Your task to perform on an android device: open chrome privacy settings Image 0: 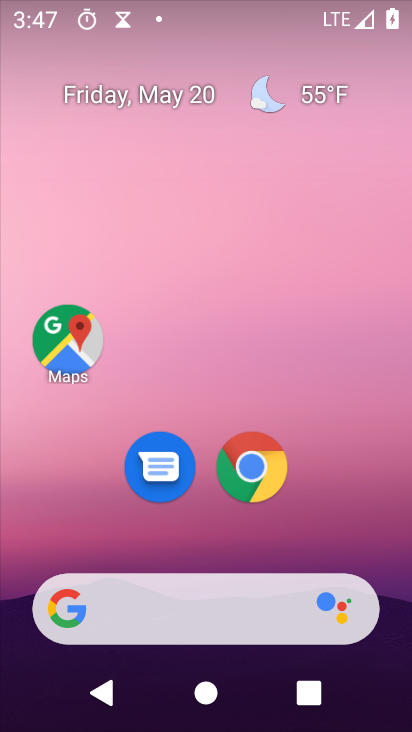
Step 0: click (263, 466)
Your task to perform on an android device: open chrome privacy settings Image 1: 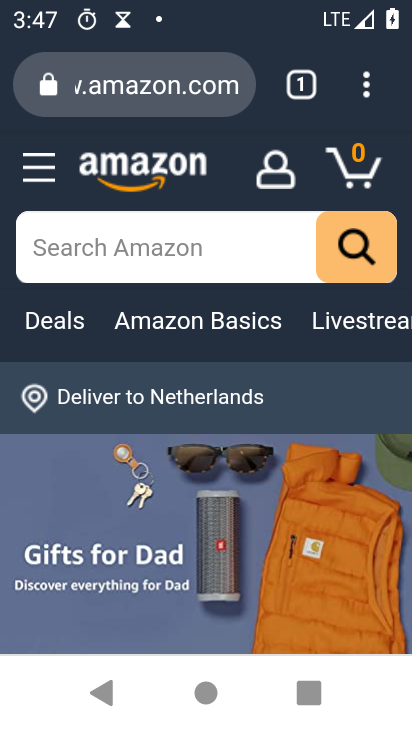
Step 1: click (361, 82)
Your task to perform on an android device: open chrome privacy settings Image 2: 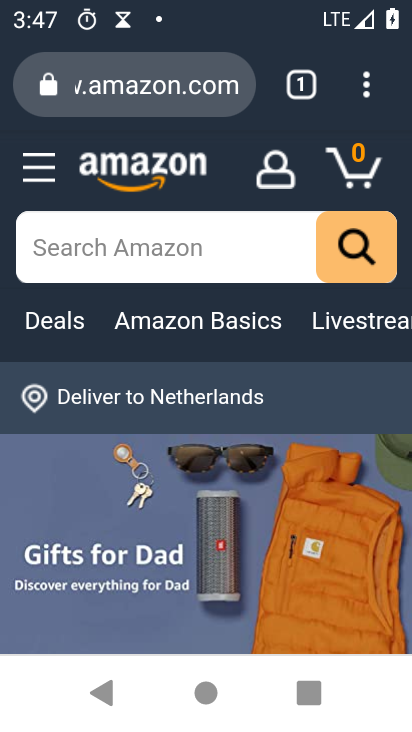
Step 2: click (358, 89)
Your task to perform on an android device: open chrome privacy settings Image 3: 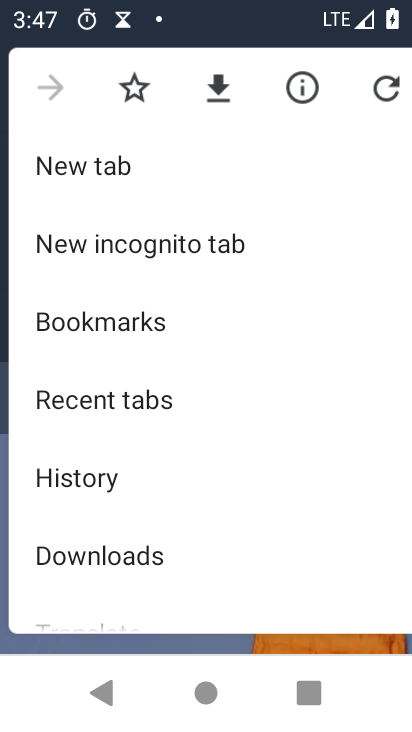
Step 3: drag from (136, 586) to (167, 227)
Your task to perform on an android device: open chrome privacy settings Image 4: 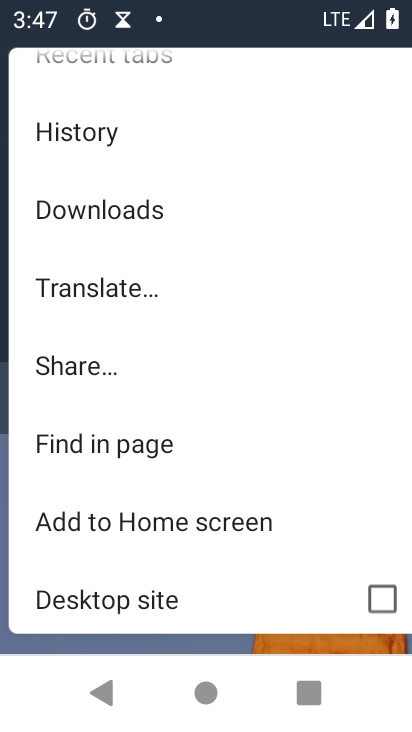
Step 4: drag from (105, 546) to (125, 181)
Your task to perform on an android device: open chrome privacy settings Image 5: 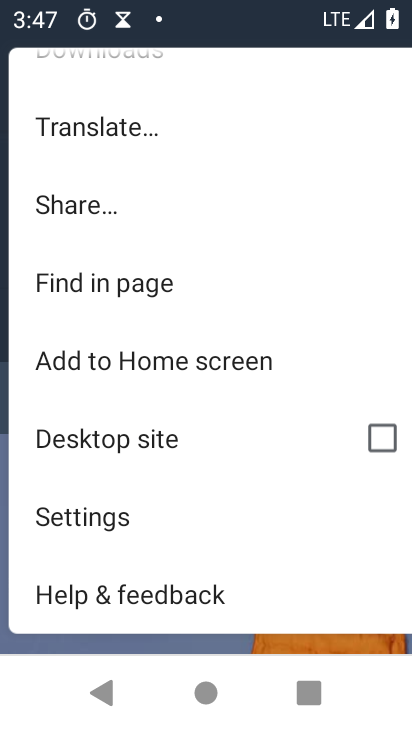
Step 5: click (112, 518)
Your task to perform on an android device: open chrome privacy settings Image 6: 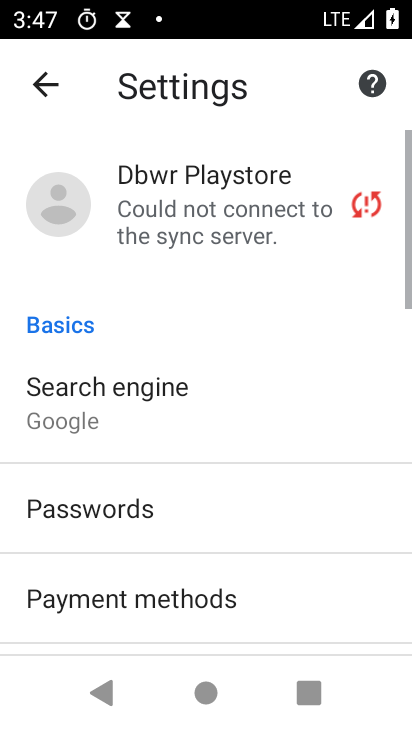
Step 6: drag from (132, 603) to (136, 158)
Your task to perform on an android device: open chrome privacy settings Image 7: 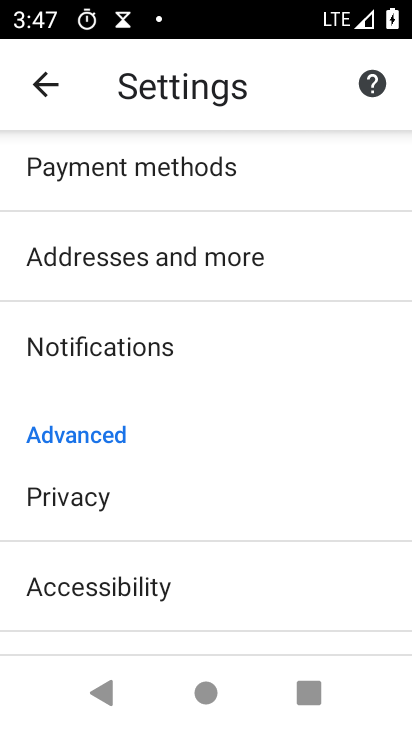
Step 7: drag from (147, 555) to (132, 276)
Your task to perform on an android device: open chrome privacy settings Image 8: 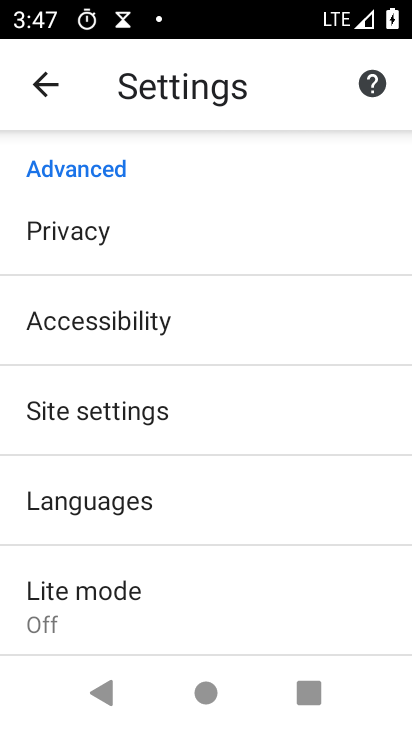
Step 8: click (130, 239)
Your task to perform on an android device: open chrome privacy settings Image 9: 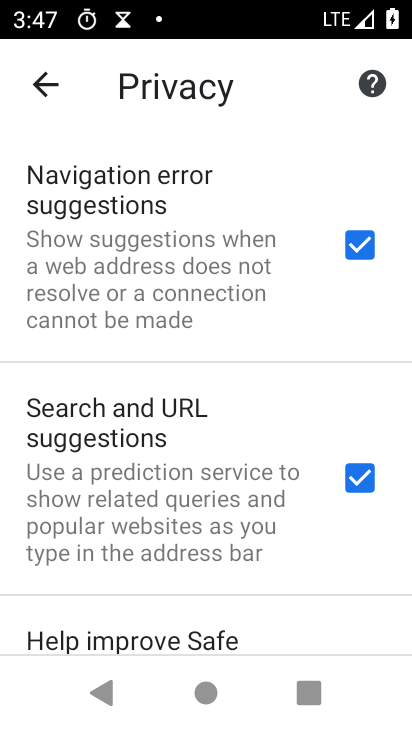
Step 9: task complete